Your task to perform on an android device: check google app version Image 0: 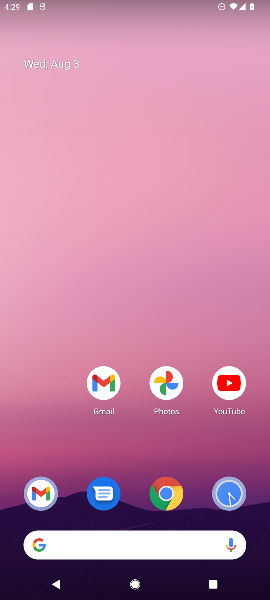
Step 0: drag from (54, 417) to (59, 240)
Your task to perform on an android device: check google app version Image 1: 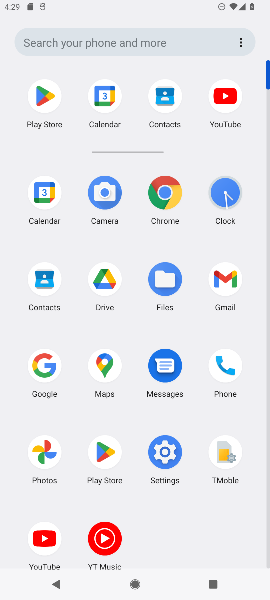
Step 1: click (38, 376)
Your task to perform on an android device: check google app version Image 2: 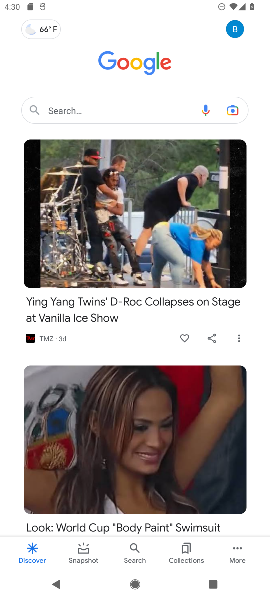
Step 2: click (231, 29)
Your task to perform on an android device: check google app version Image 3: 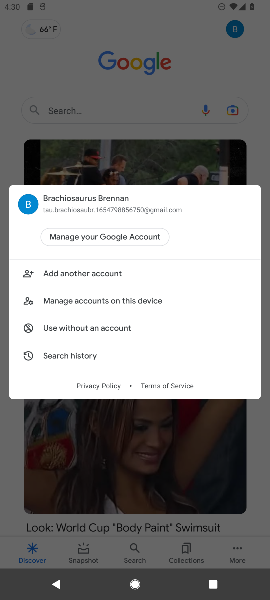
Step 3: press back button
Your task to perform on an android device: check google app version Image 4: 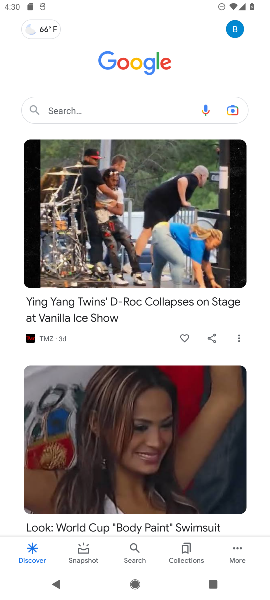
Step 4: click (238, 553)
Your task to perform on an android device: check google app version Image 5: 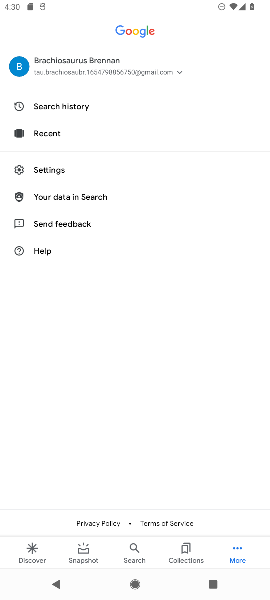
Step 5: click (89, 168)
Your task to perform on an android device: check google app version Image 6: 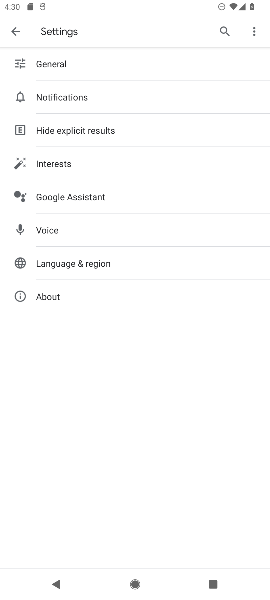
Step 6: click (40, 292)
Your task to perform on an android device: check google app version Image 7: 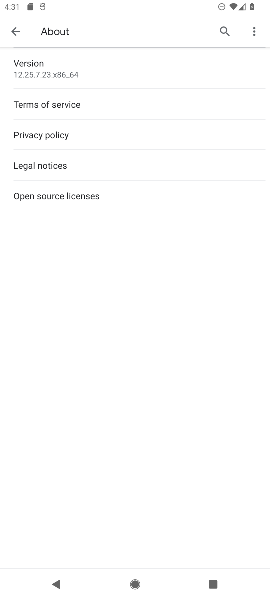
Step 7: task complete